Your task to perform on an android device: toggle sleep mode Image 0: 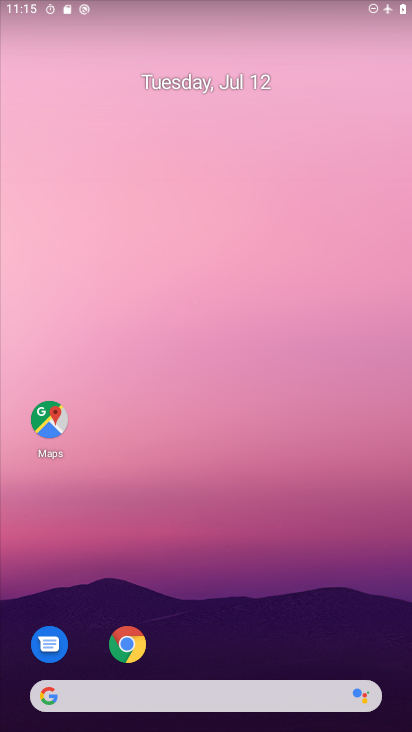
Step 0: drag from (195, 632) to (198, 304)
Your task to perform on an android device: toggle sleep mode Image 1: 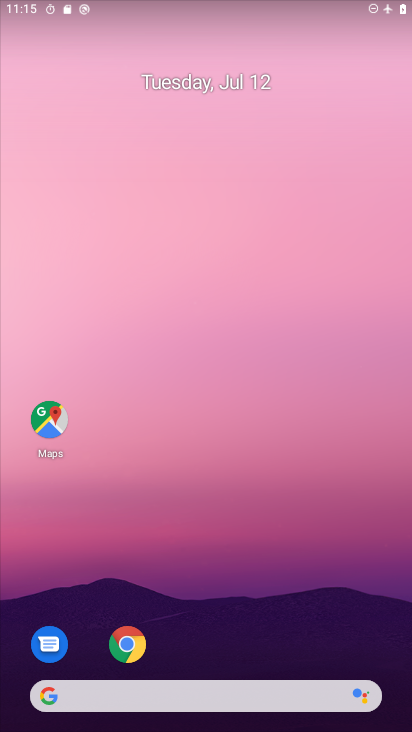
Step 1: drag from (214, 643) to (234, 266)
Your task to perform on an android device: toggle sleep mode Image 2: 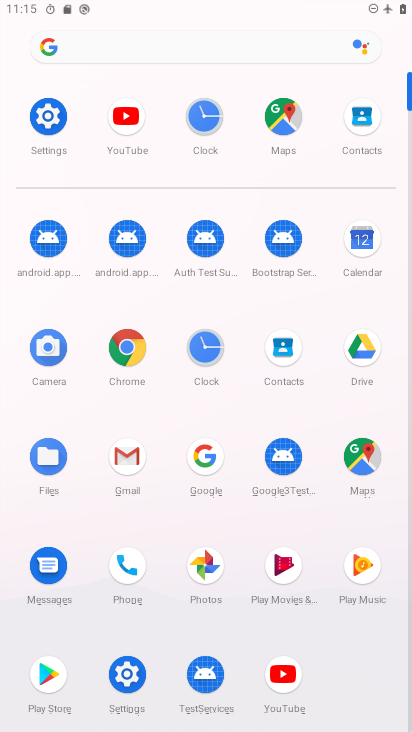
Step 2: click (40, 132)
Your task to perform on an android device: toggle sleep mode Image 3: 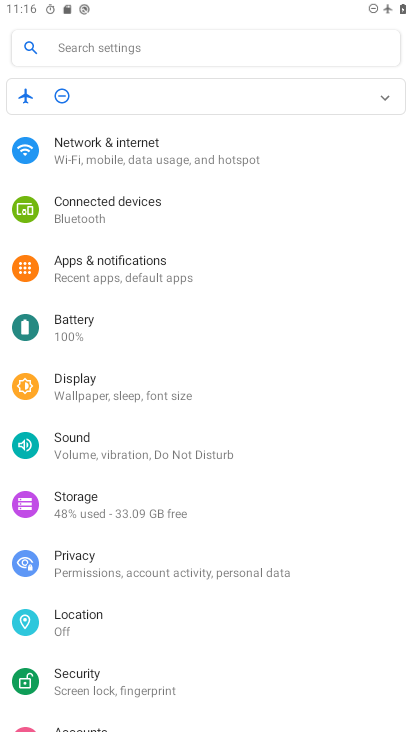
Step 3: click (126, 381)
Your task to perform on an android device: toggle sleep mode Image 4: 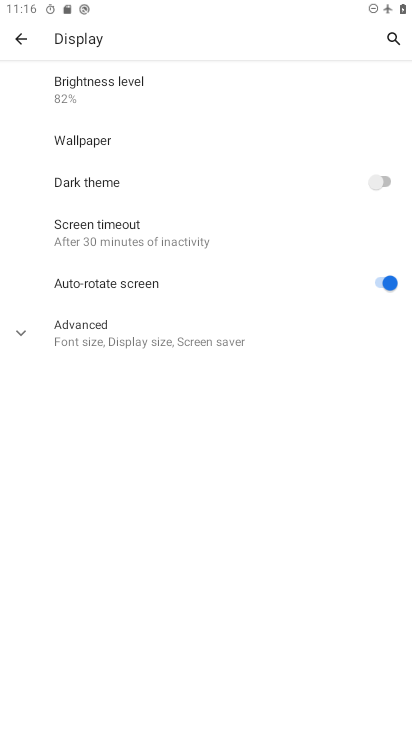
Step 4: click (85, 247)
Your task to perform on an android device: toggle sleep mode Image 5: 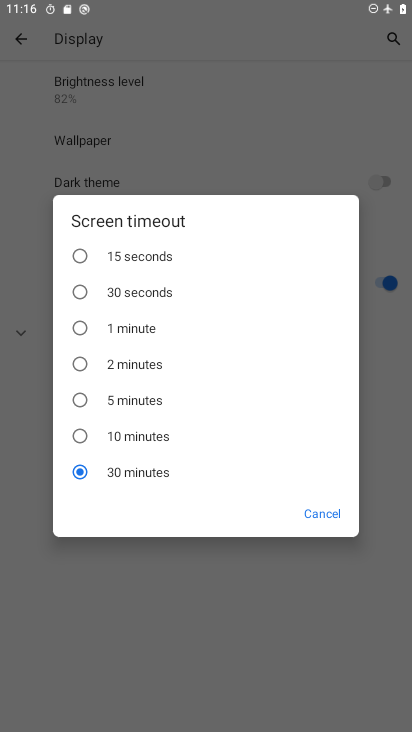
Step 5: click (108, 372)
Your task to perform on an android device: toggle sleep mode Image 6: 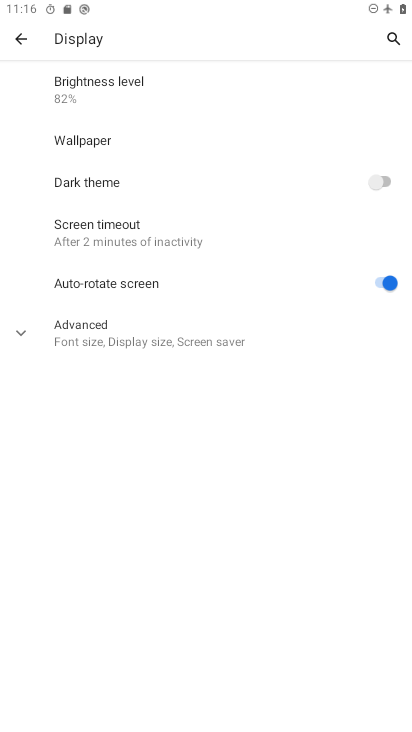
Step 6: task complete